Your task to perform on an android device: Go to network settings Image 0: 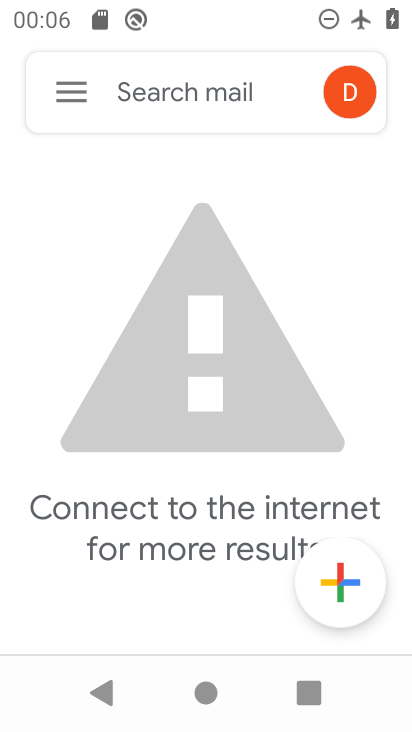
Step 0: press home button
Your task to perform on an android device: Go to network settings Image 1: 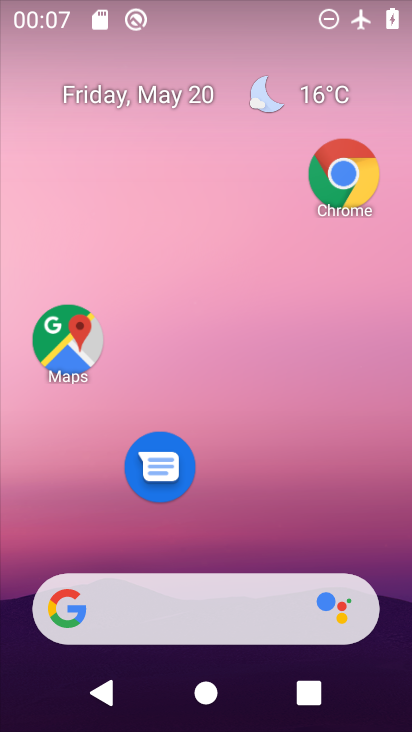
Step 1: drag from (325, 455) to (256, 123)
Your task to perform on an android device: Go to network settings Image 2: 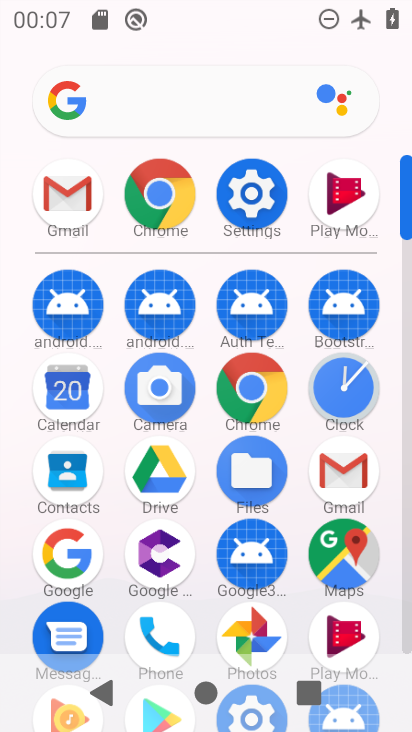
Step 2: click (264, 197)
Your task to perform on an android device: Go to network settings Image 3: 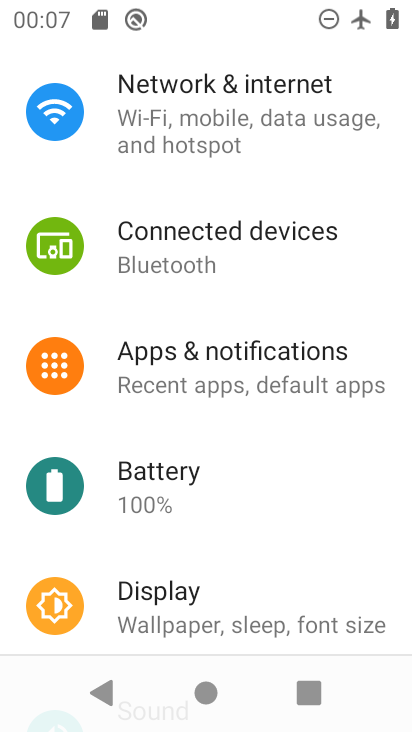
Step 3: click (180, 145)
Your task to perform on an android device: Go to network settings Image 4: 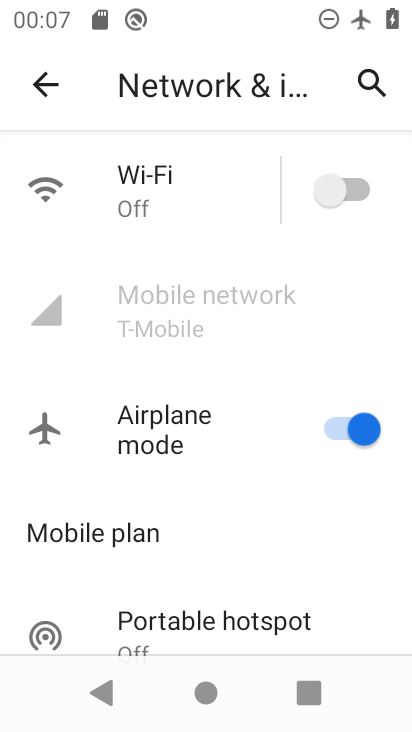
Step 4: task complete